Your task to perform on an android device: Go to Android settings Image 0: 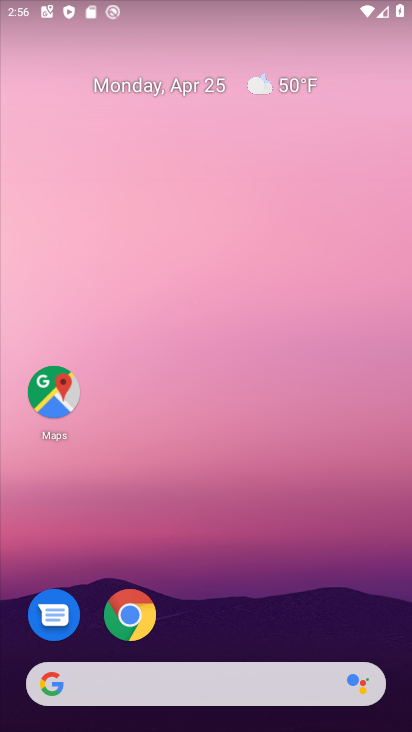
Step 0: drag from (220, 728) to (225, 128)
Your task to perform on an android device: Go to Android settings Image 1: 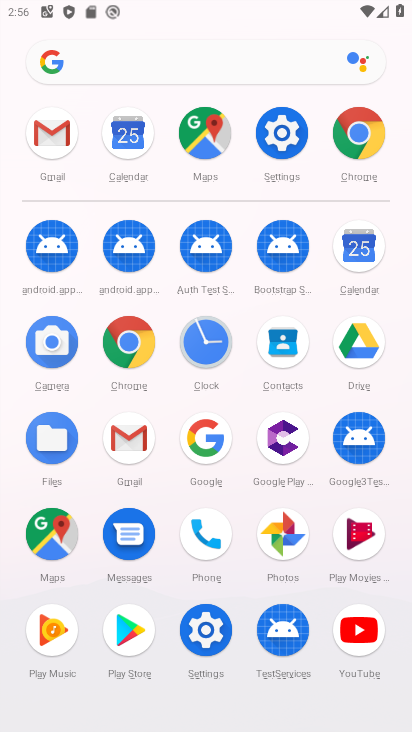
Step 1: click (279, 138)
Your task to perform on an android device: Go to Android settings Image 2: 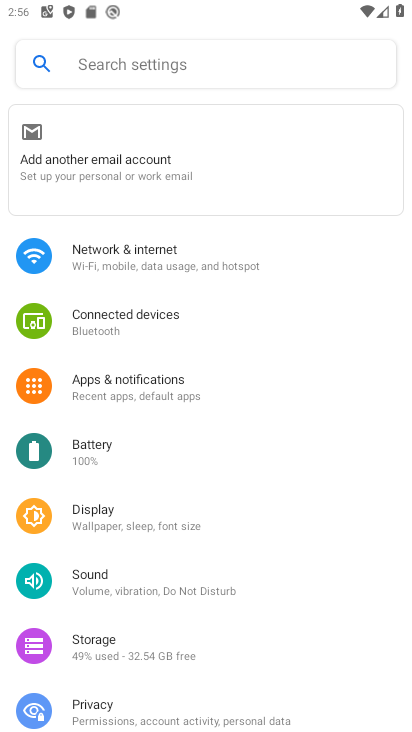
Step 2: task complete